Your task to perform on an android device: Go to notification settings Image 0: 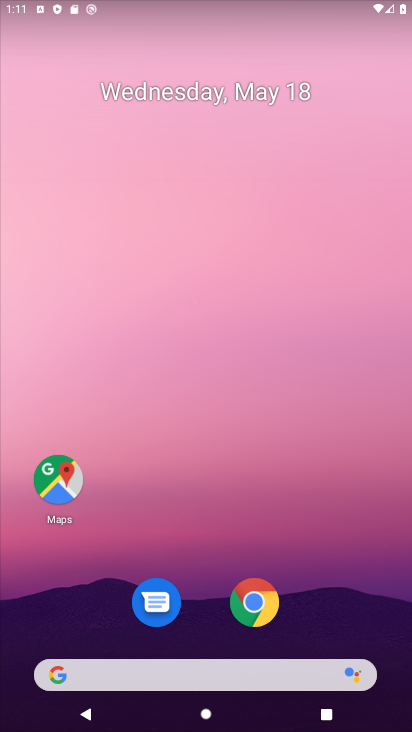
Step 0: drag from (133, 706) to (142, 130)
Your task to perform on an android device: Go to notification settings Image 1: 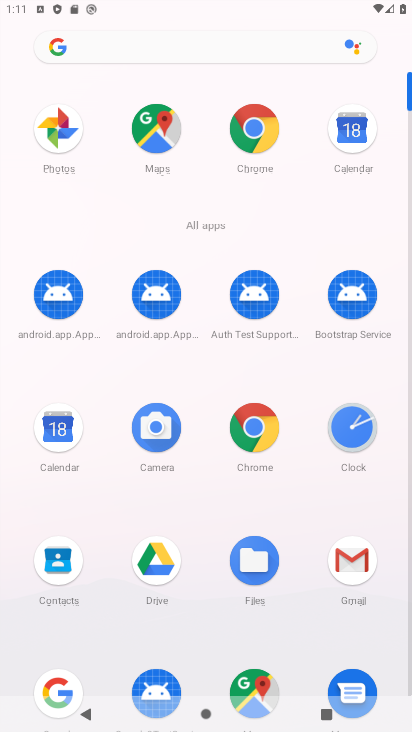
Step 1: drag from (225, 561) to (237, 130)
Your task to perform on an android device: Go to notification settings Image 2: 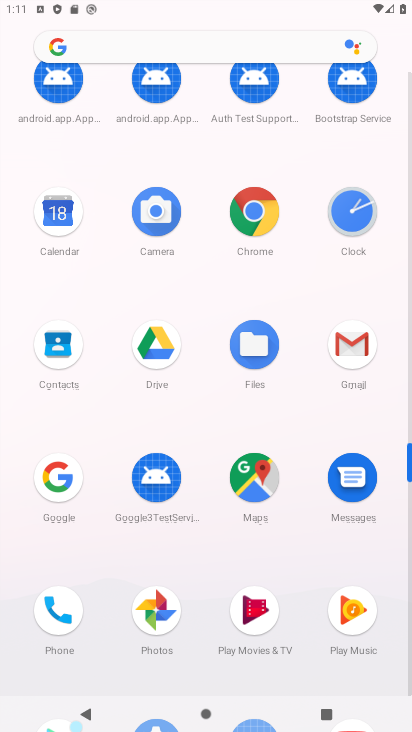
Step 2: drag from (222, 609) to (193, 139)
Your task to perform on an android device: Go to notification settings Image 3: 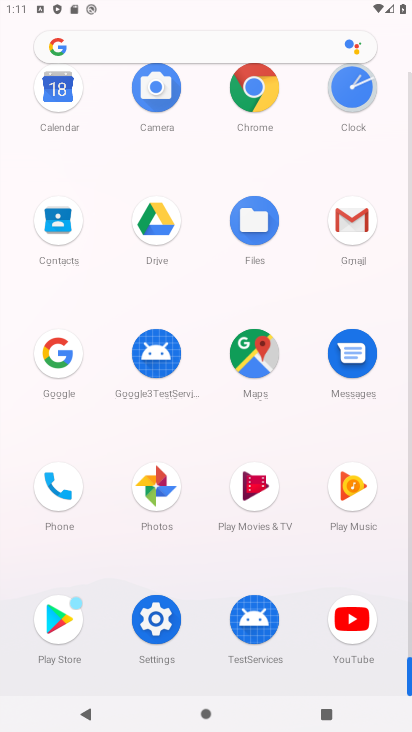
Step 3: click (159, 614)
Your task to perform on an android device: Go to notification settings Image 4: 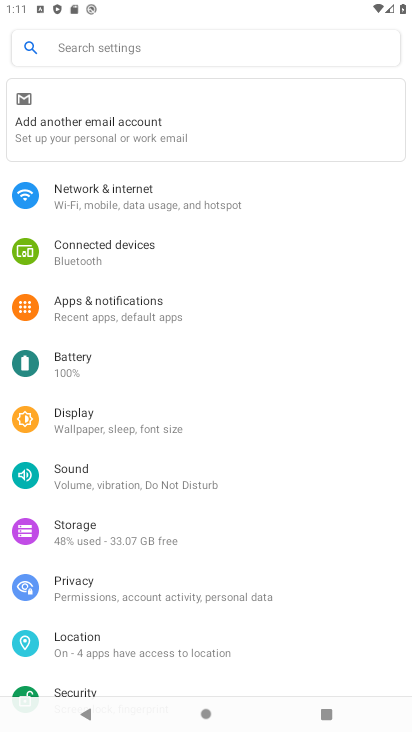
Step 4: click (156, 311)
Your task to perform on an android device: Go to notification settings Image 5: 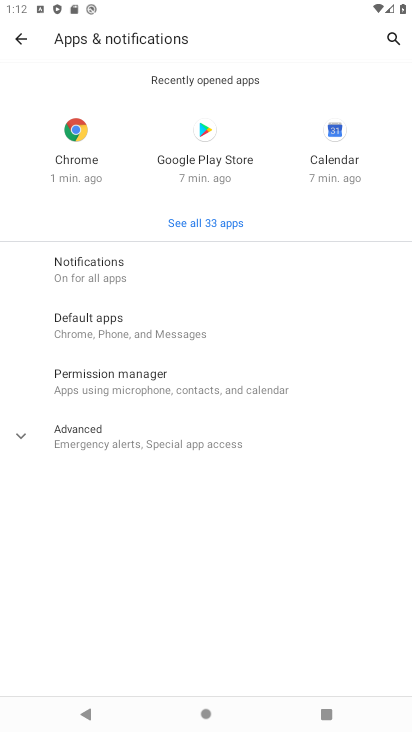
Step 5: task complete